Your task to perform on an android device: What's on my calendar tomorrow? Image 0: 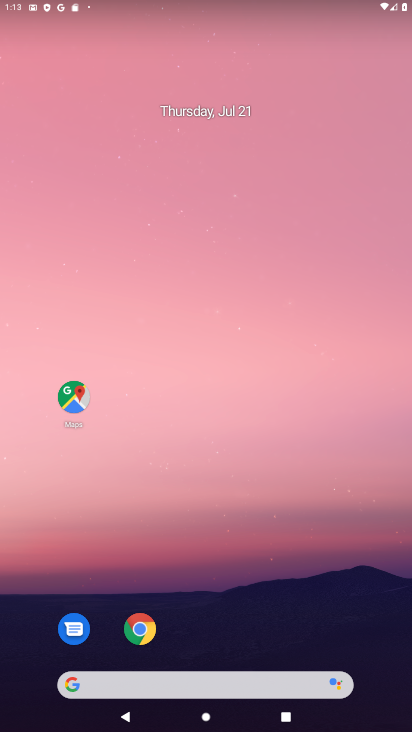
Step 0: drag from (198, 646) to (209, 97)
Your task to perform on an android device: What's on my calendar tomorrow? Image 1: 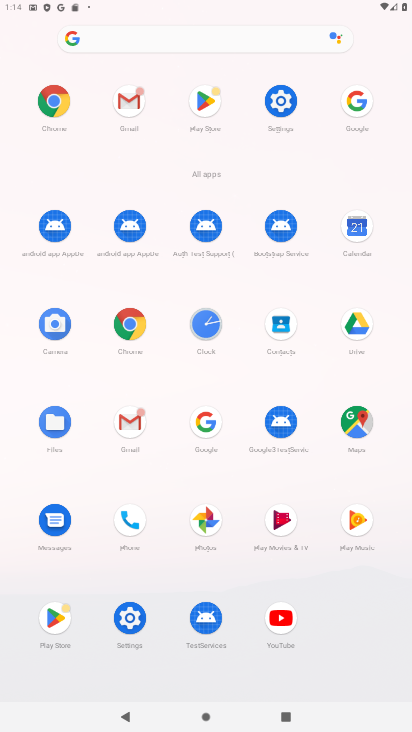
Step 1: click (359, 235)
Your task to perform on an android device: What's on my calendar tomorrow? Image 2: 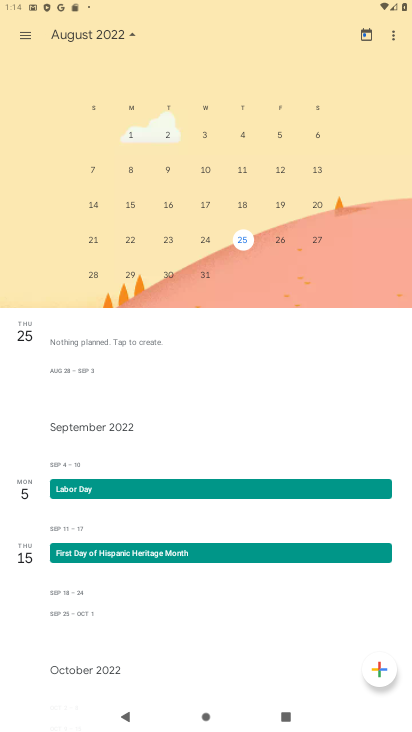
Step 2: drag from (32, 246) to (397, 250)
Your task to perform on an android device: What's on my calendar tomorrow? Image 3: 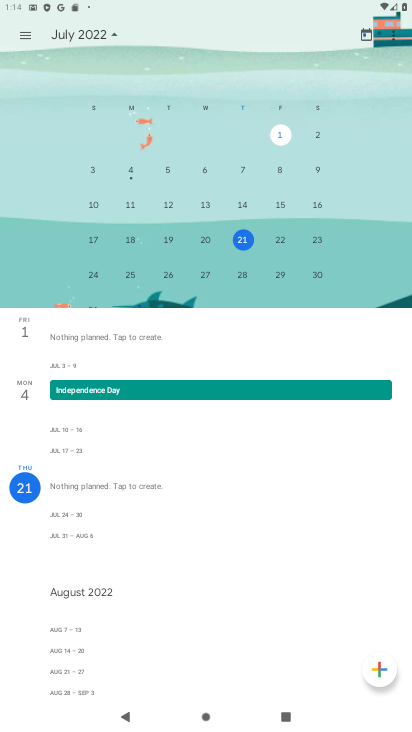
Step 3: click (281, 244)
Your task to perform on an android device: What's on my calendar tomorrow? Image 4: 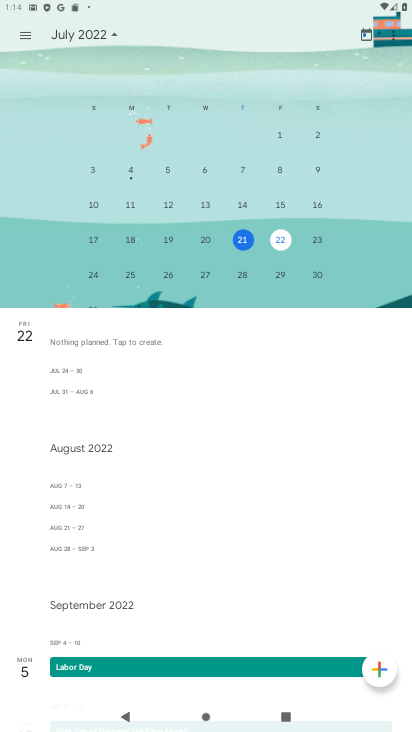
Step 4: task complete